Your task to perform on an android device: uninstall "Gboard" Image 0: 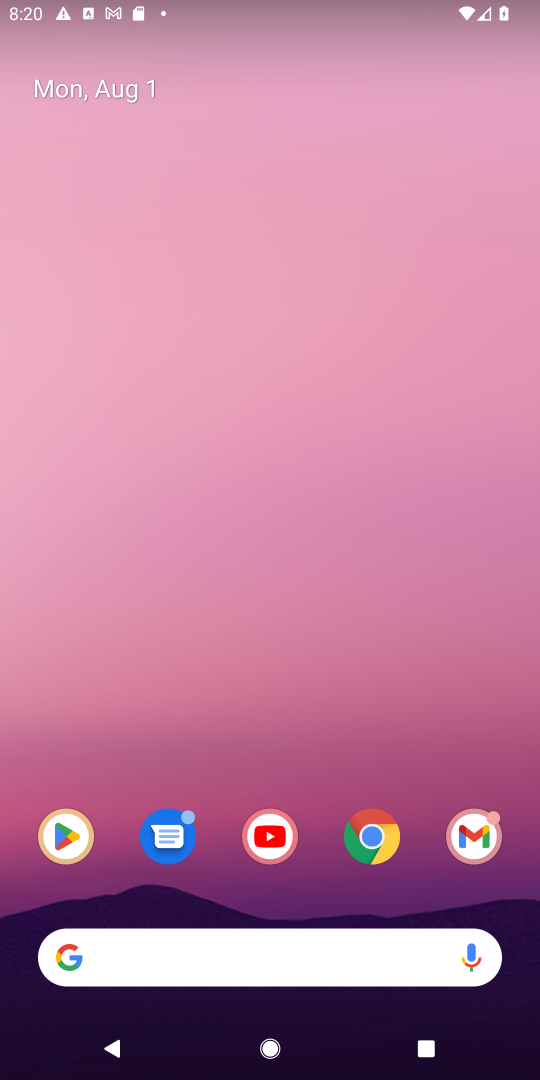
Step 0: click (67, 839)
Your task to perform on an android device: uninstall "Gboard" Image 1: 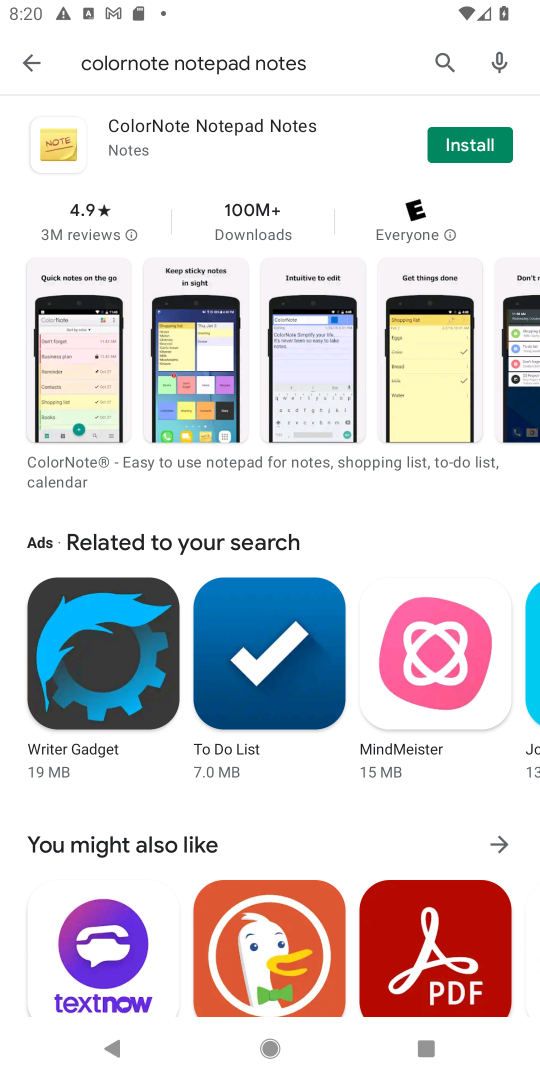
Step 1: click (441, 53)
Your task to perform on an android device: uninstall "Gboard" Image 2: 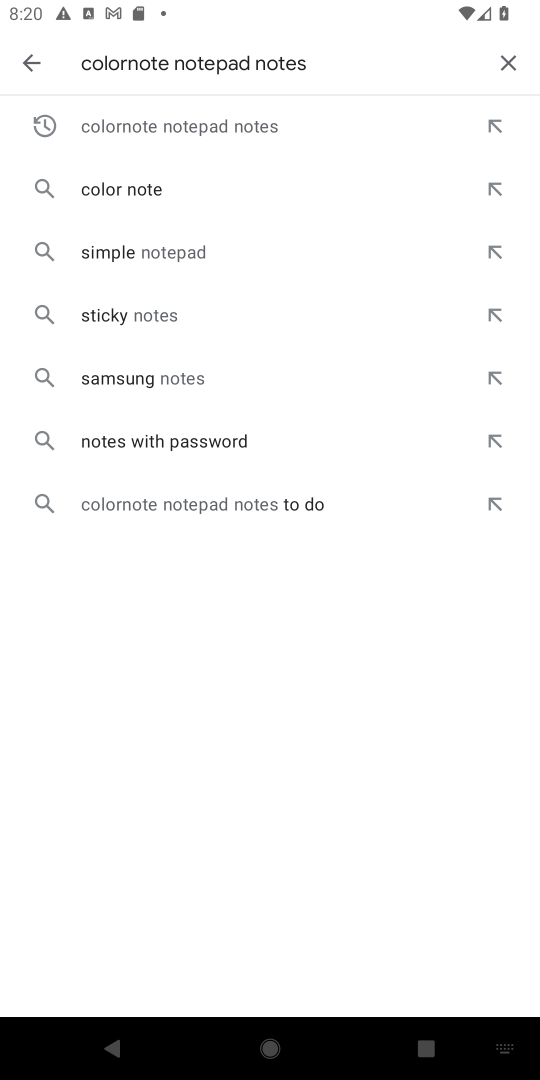
Step 2: click (506, 60)
Your task to perform on an android device: uninstall "Gboard" Image 3: 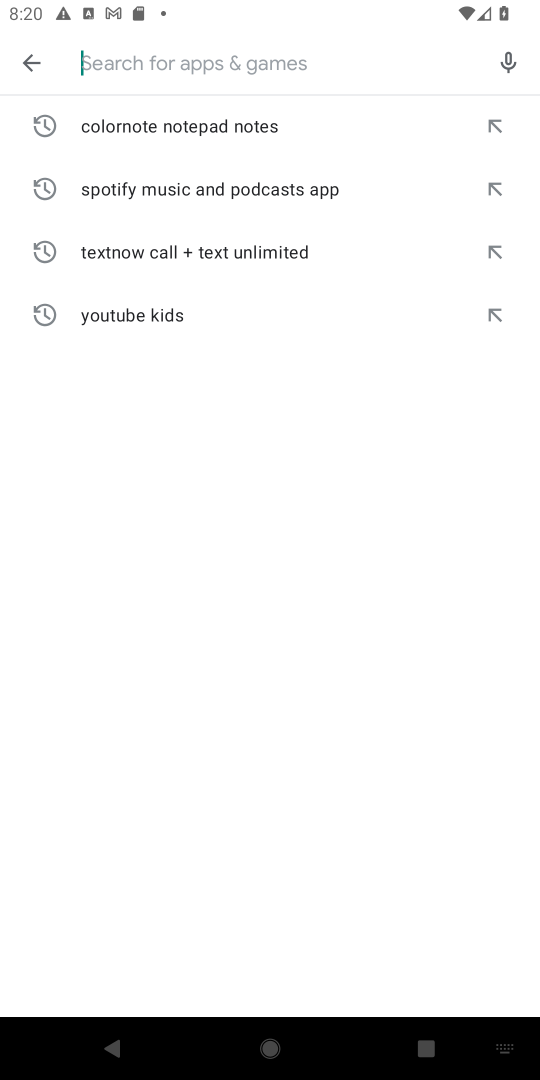
Step 3: type "Gboard"
Your task to perform on an android device: uninstall "Gboard" Image 4: 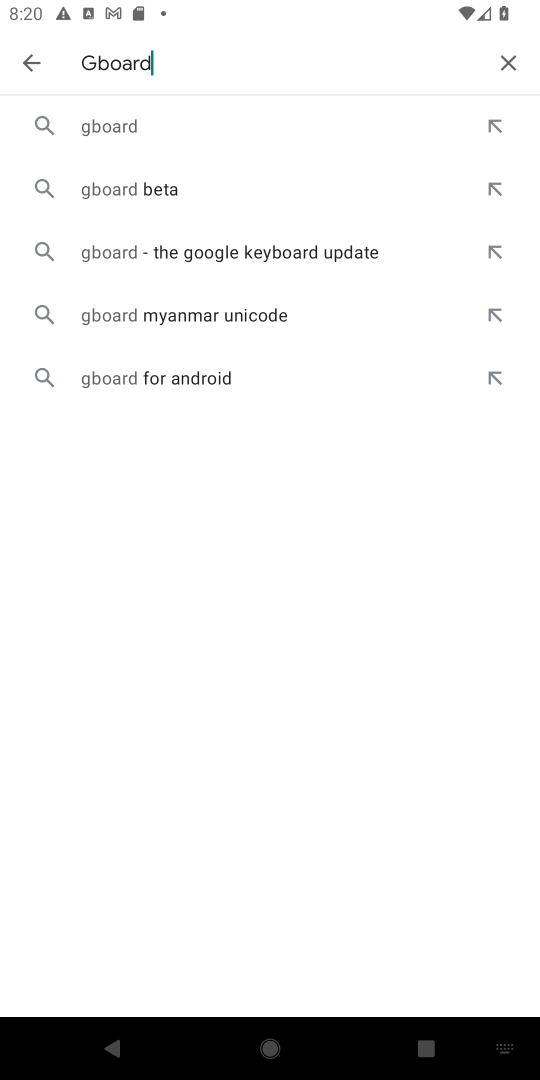
Step 4: click (72, 131)
Your task to perform on an android device: uninstall "Gboard" Image 5: 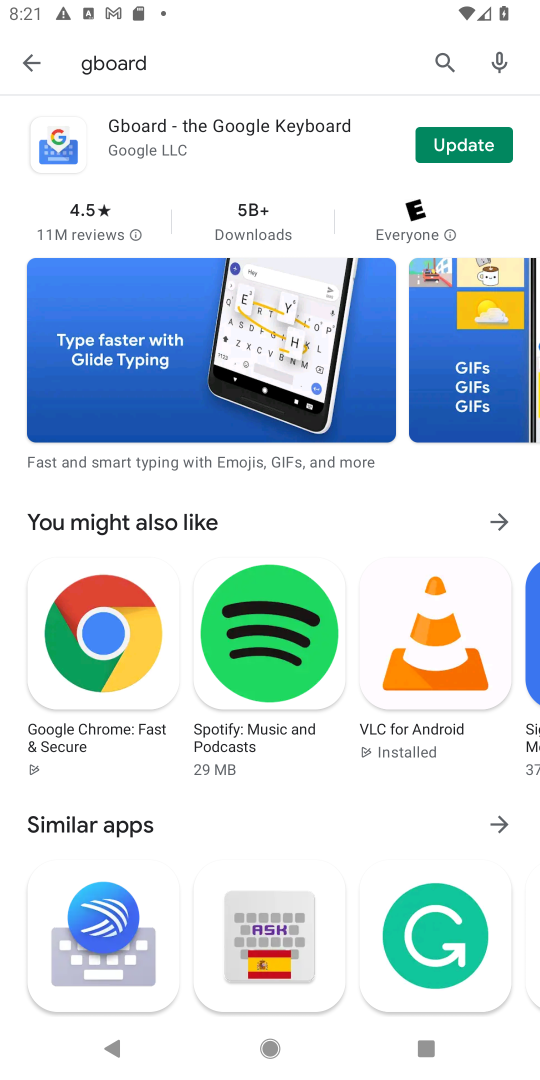
Step 5: click (119, 139)
Your task to perform on an android device: uninstall "Gboard" Image 6: 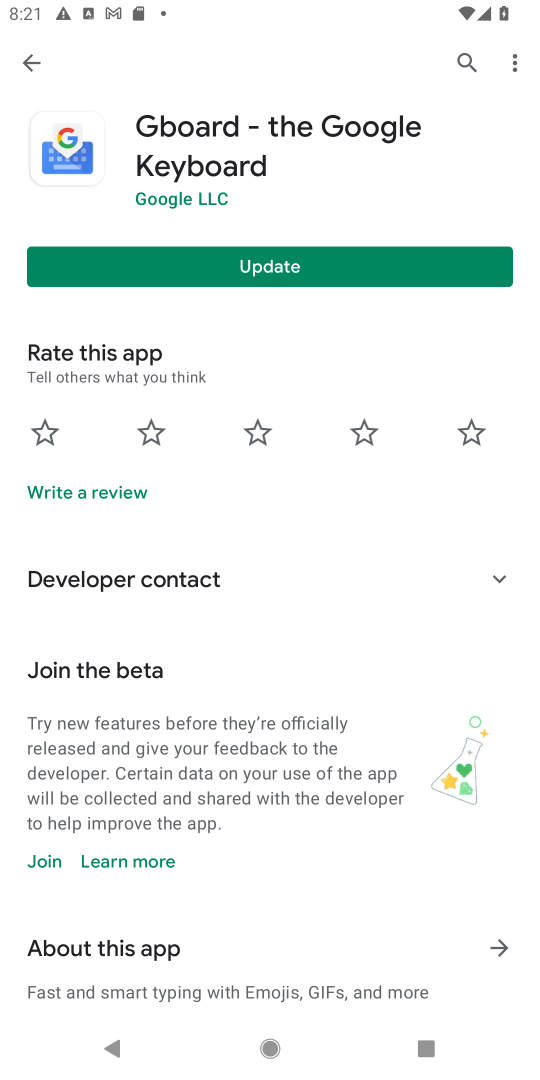
Step 6: task complete